Your task to perform on an android device: Open Youtube and go to the subscriptions tab Image 0: 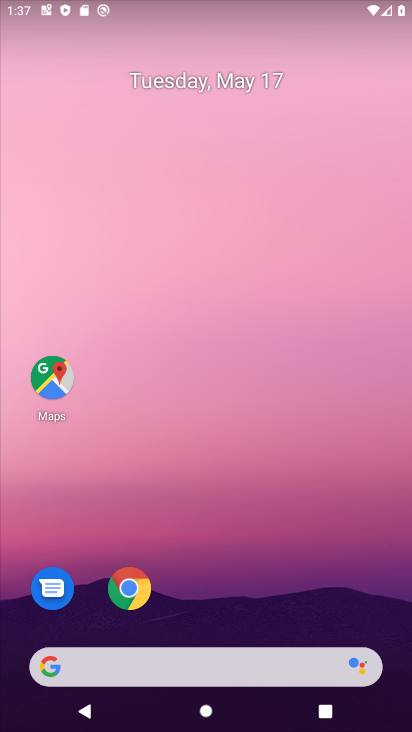
Step 0: drag from (215, 435) to (156, 137)
Your task to perform on an android device: Open Youtube and go to the subscriptions tab Image 1: 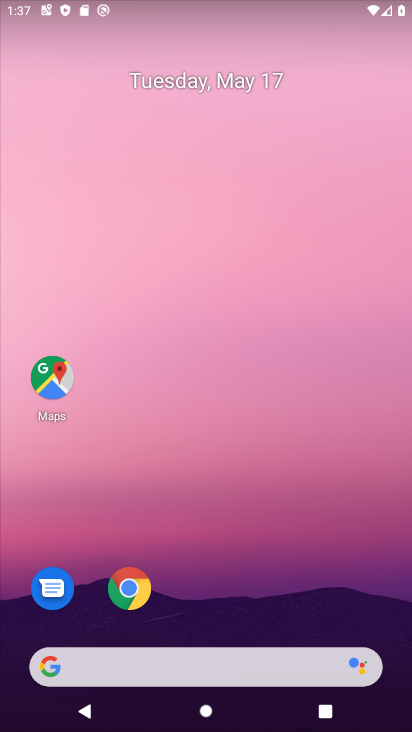
Step 1: drag from (263, 620) to (253, 40)
Your task to perform on an android device: Open Youtube and go to the subscriptions tab Image 2: 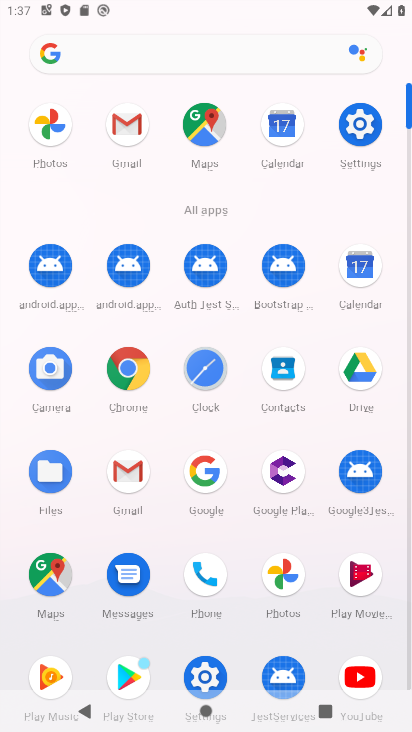
Step 2: click (363, 674)
Your task to perform on an android device: Open Youtube and go to the subscriptions tab Image 3: 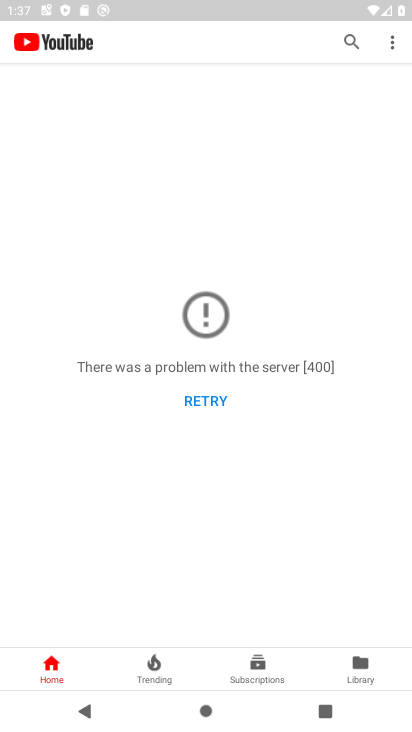
Step 3: click (261, 671)
Your task to perform on an android device: Open Youtube and go to the subscriptions tab Image 4: 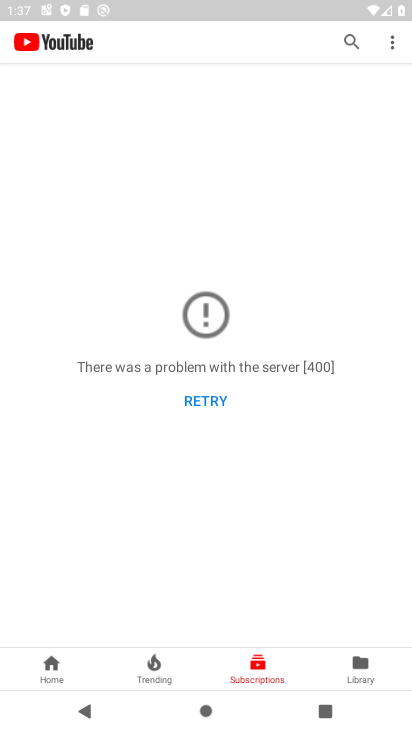
Step 4: task complete